Your task to perform on an android device: Open eBay Image 0: 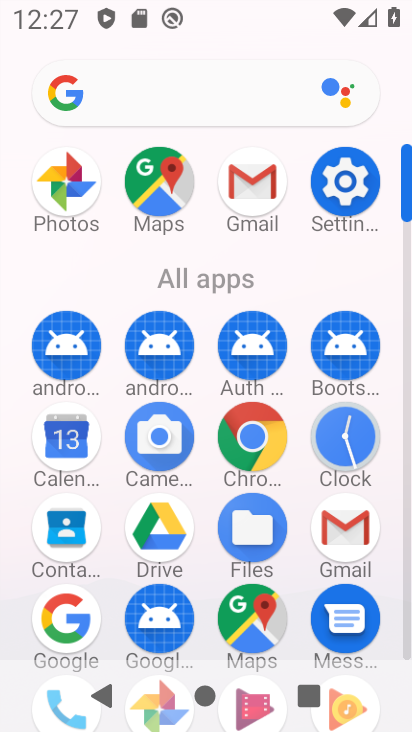
Step 0: press home button
Your task to perform on an android device: Open eBay Image 1: 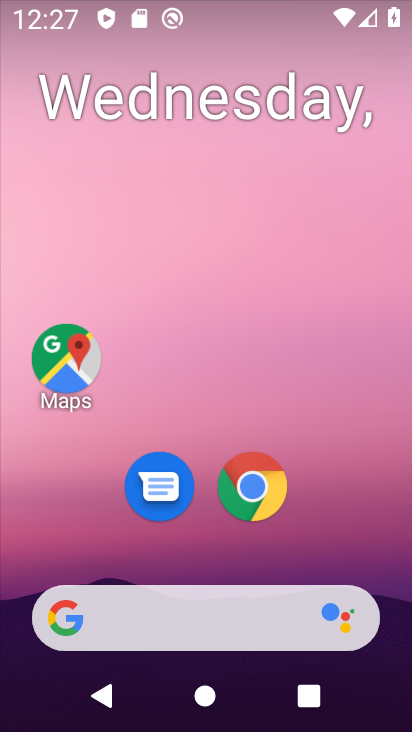
Step 1: drag from (379, 558) to (361, 86)
Your task to perform on an android device: Open eBay Image 2: 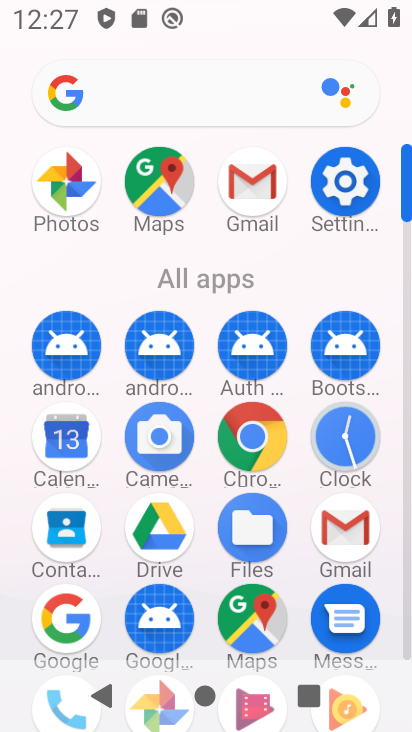
Step 2: click (241, 435)
Your task to perform on an android device: Open eBay Image 3: 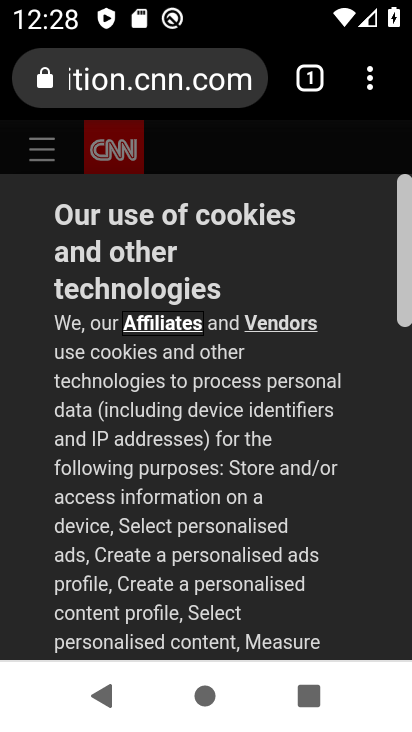
Step 3: click (154, 77)
Your task to perform on an android device: Open eBay Image 4: 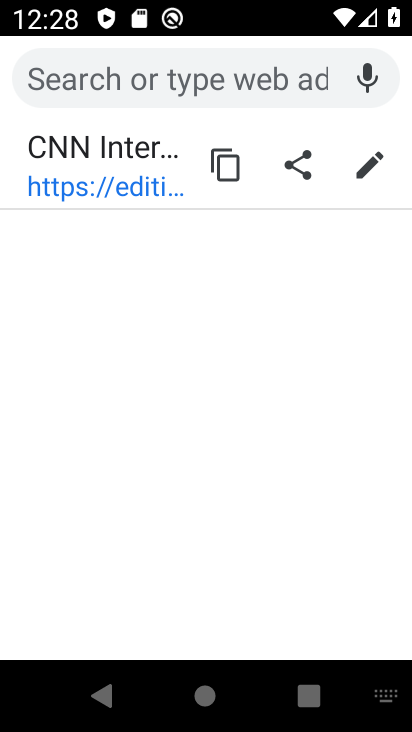
Step 4: type "ebay "
Your task to perform on an android device: Open eBay Image 5: 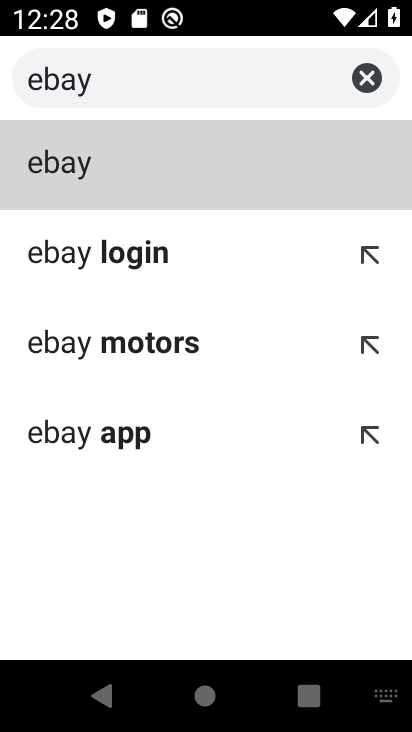
Step 5: click (230, 172)
Your task to perform on an android device: Open eBay Image 6: 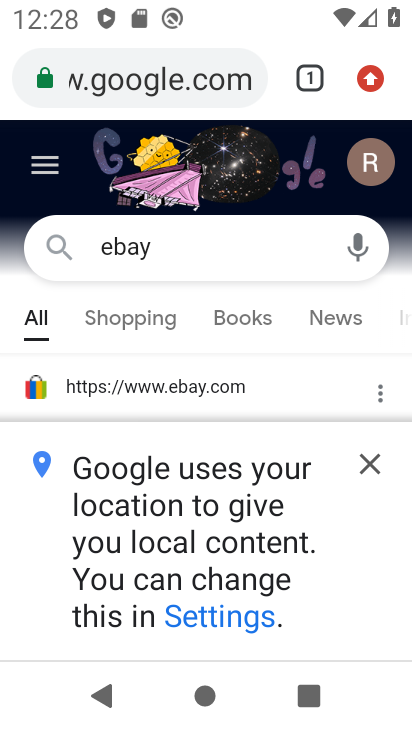
Step 6: task complete